Your task to perform on an android device: see creations saved in the google photos Image 0: 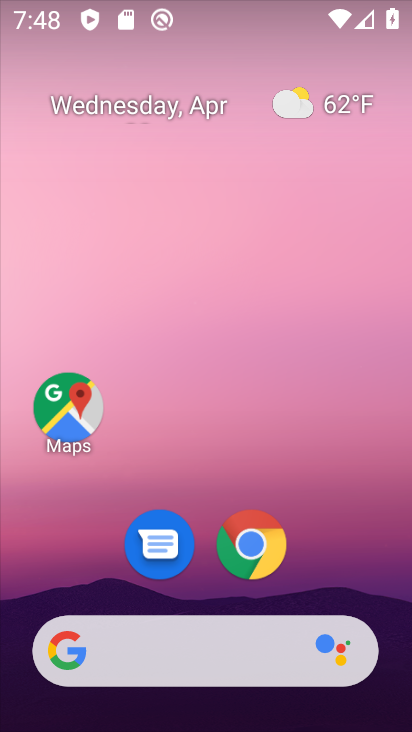
Step 0: drag from (326, 527) to (80, 131)
Your task to perform on an android device: see creations saved in the google photos Image 1: 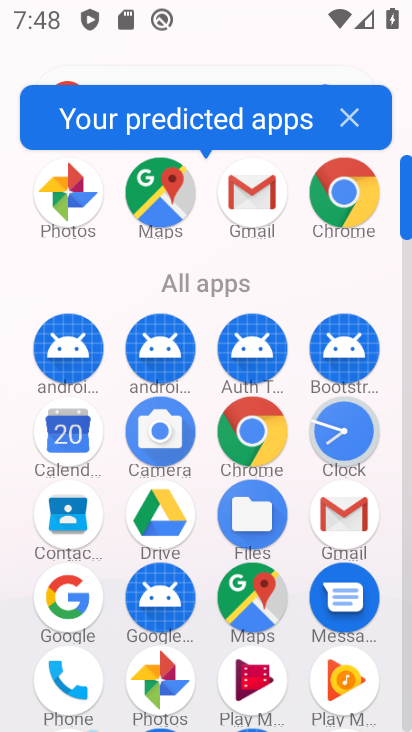
Step 1: click (159, 668)
Your task to perform on an android device: see creations saved in the google photos Image 2: 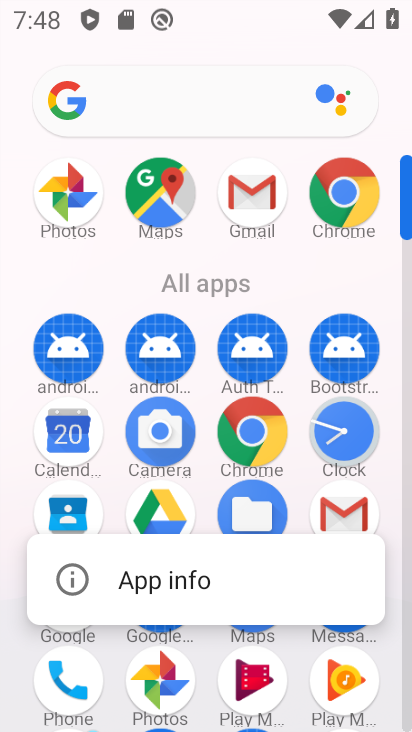
Step 2: click (159, 670)
Your task to perform on an android device: see creations saved in the google photos Image 3: 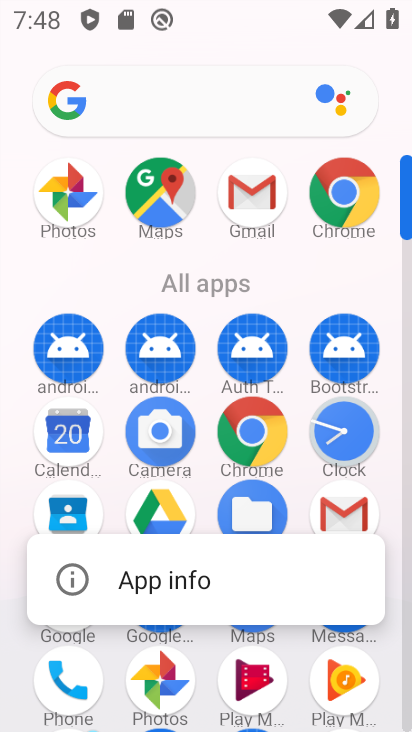
Step 3: click (160, 689)
Your task to perform on an android device: see creations saved in the google photos Image 4: 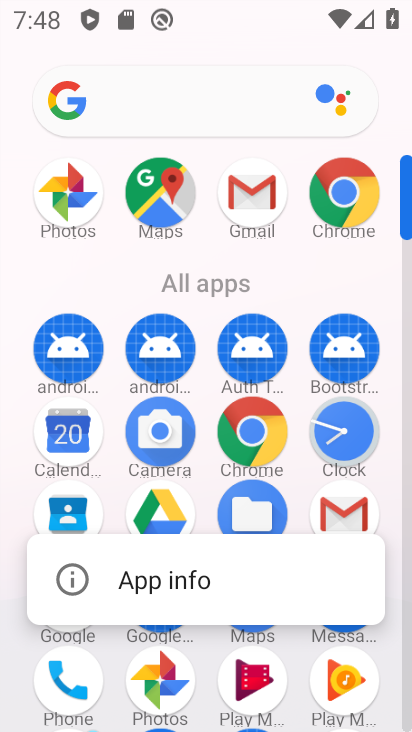
Step 4: click (160, 687)
Your task to perform on an android device: see creations saved in the google photos Image 5: 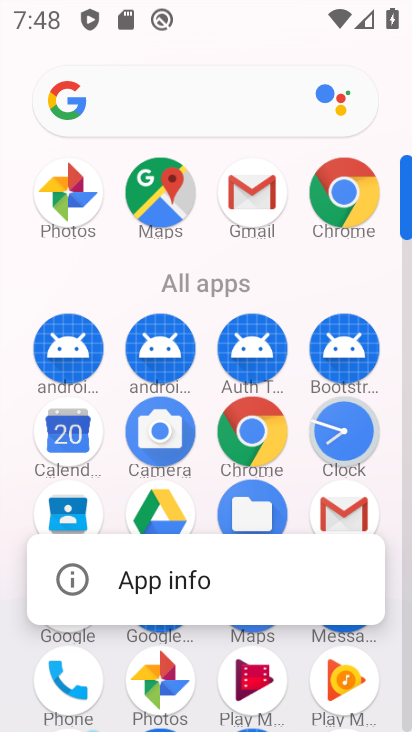
Step 5: click (160, 687)
Your task to perform on an android device: see creations saved in the google photos Image 6: 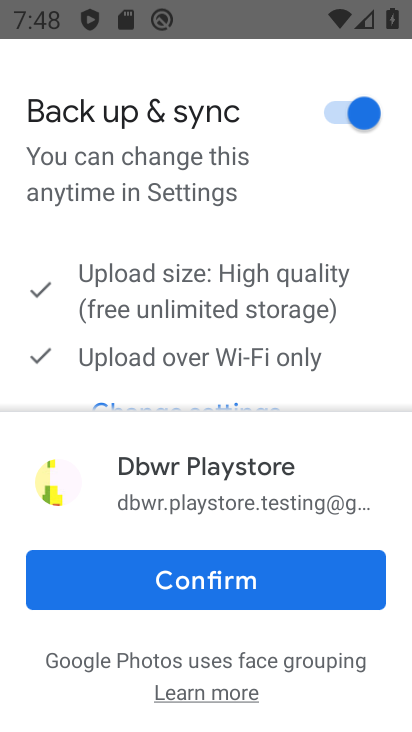
Step 6: click (205, 590)
Your task to perform on an android device: see creations saved in the google photos Image 7: 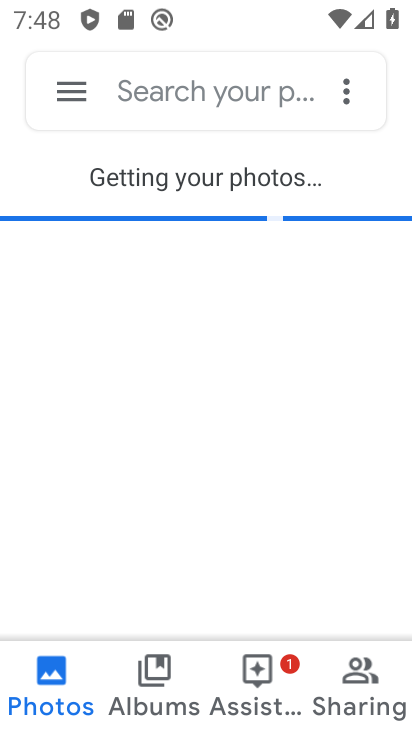
Step 7: click (217, 99)
Your task to perform on an android device: see creations saved in the google photos Image 8: 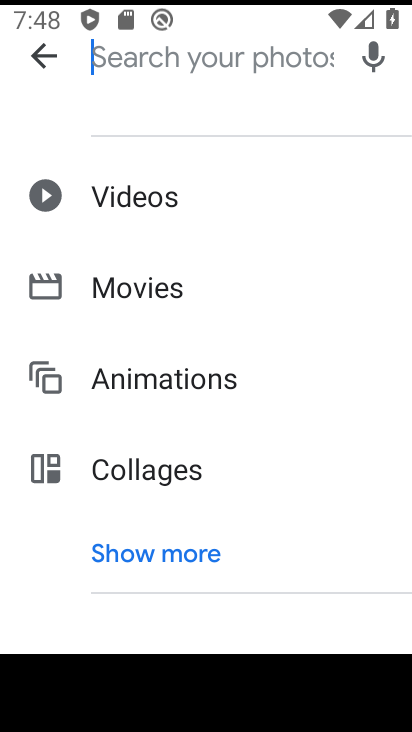
Step 8: click (140, 554)
Your task to perform on an android device: see creations saved in the google photos Image 9: 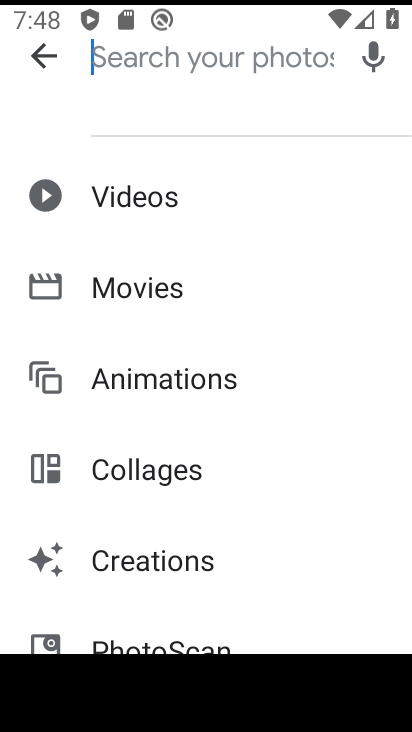
Step 9: click (142, 570)
Your task to perform on an android device: see creations saved in the google photos Image 10: 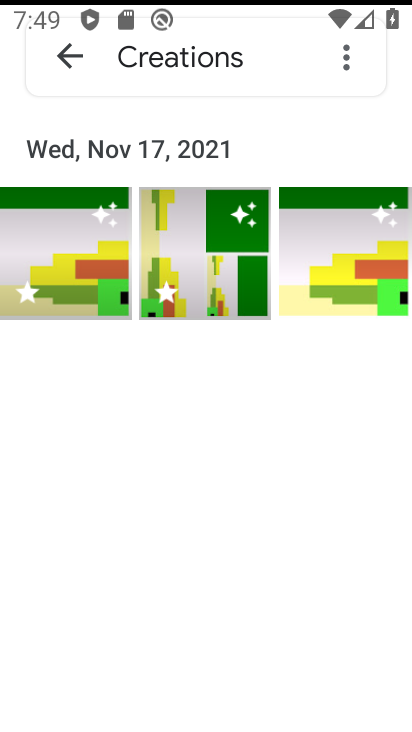
Step 10: task complete